Your task to perform on an android device: Open the calendar app, open the side menu, and click the "Day" option Image 0: 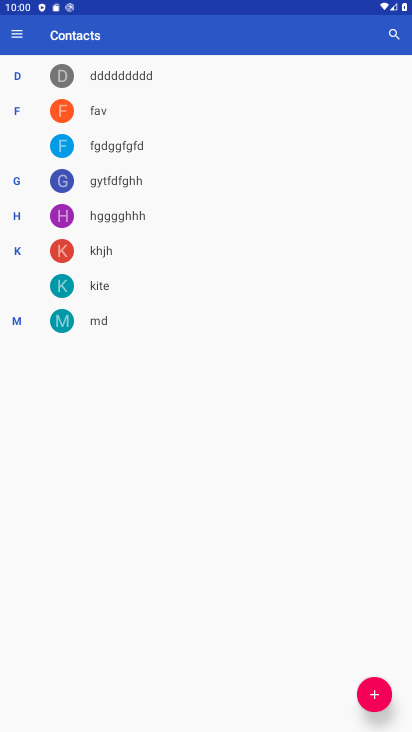
Step 0: press home button
Your task to perform on an android device: Open the calendar app, open the side menu, and click the "Day" option Image 1: 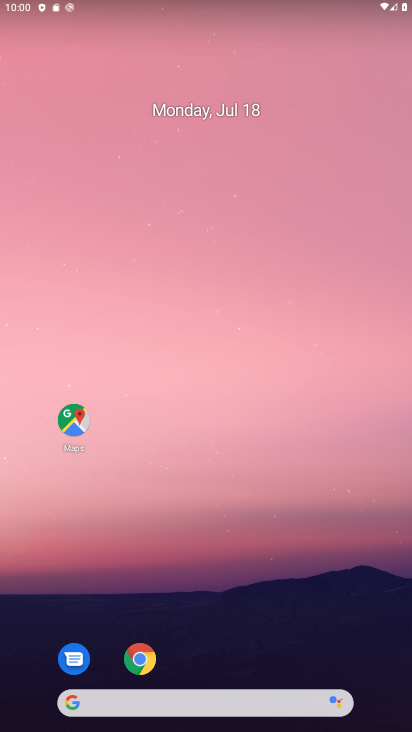
Step 1: drag from (254, 460) to (226, 142)
Your task to perform on an android device: Open the calendar app, open the side menu, and click the "Day" option Image 2: 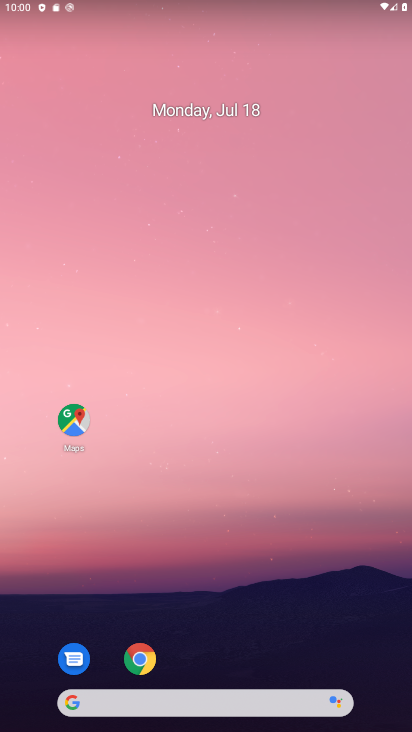
Step 2: drag from (304, 627) to (296, 350)
Your task to perform on an android device: Open the calendar app, open the side menu, and click the "Day" option Image 3: 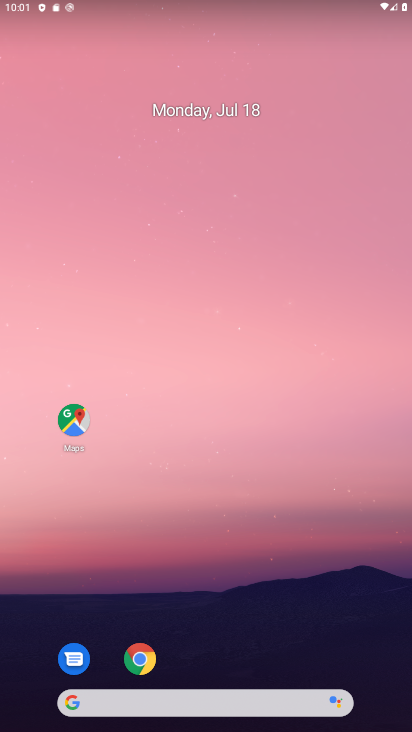
Step 3: drag from (318, 478) to (297, 142)
Your task to perform on an android device: Open the calendar app, open the side menu, and click the "Day" option Image 4: 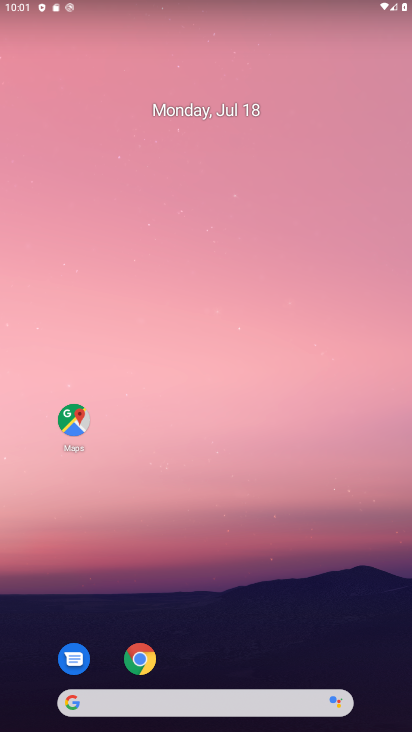
Step 4: drag from (262, 468) to (281, 39)
Your task to perform on an android device: Open the calendar app, open the side menu, and click the "Day" option Image 5: 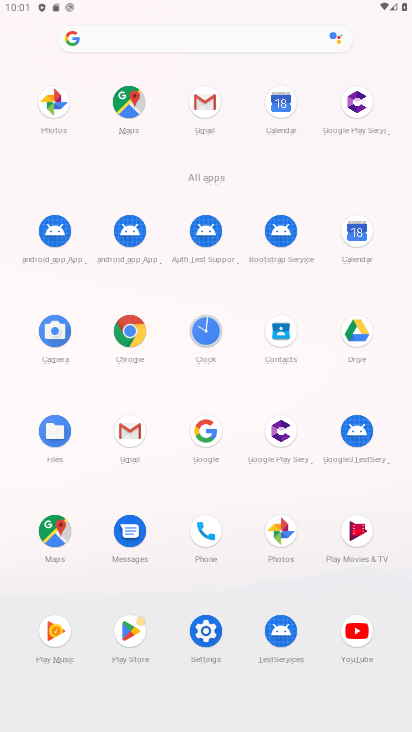
Step 5: click (357, 247)
Your task to perform on an android device: Open the calendar app, open the side menu, and click the "Day" option Image 6: 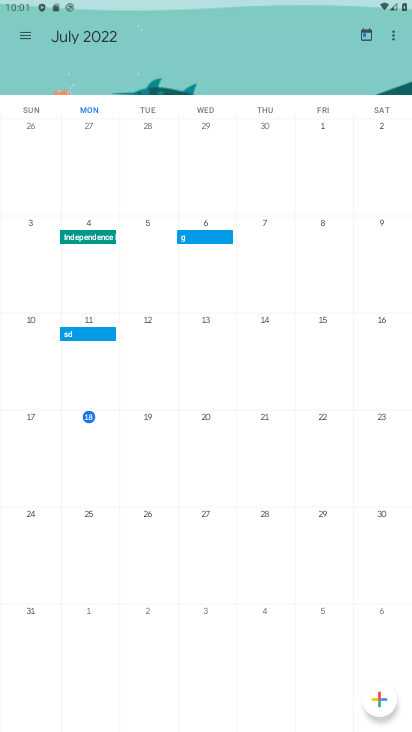
Step 6: click (27, 38)
Your task to perform on an android device: Open the calendar app, open the side menu, and click the "Day" option Image 7: 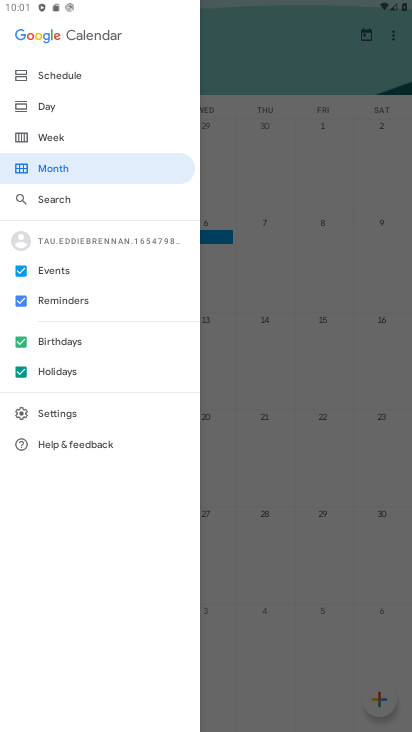
Step 7: click (56, 111)
Your task to perform on an android device: Open the calendar app, open the side menu, and click the "Day" option Image 8: 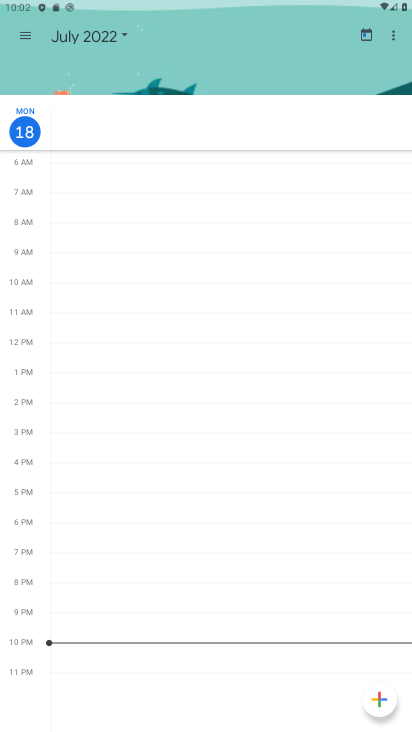
Step 8: task complete